Your task to perform on an android device: toggle javascript in the chrome app Image 0: 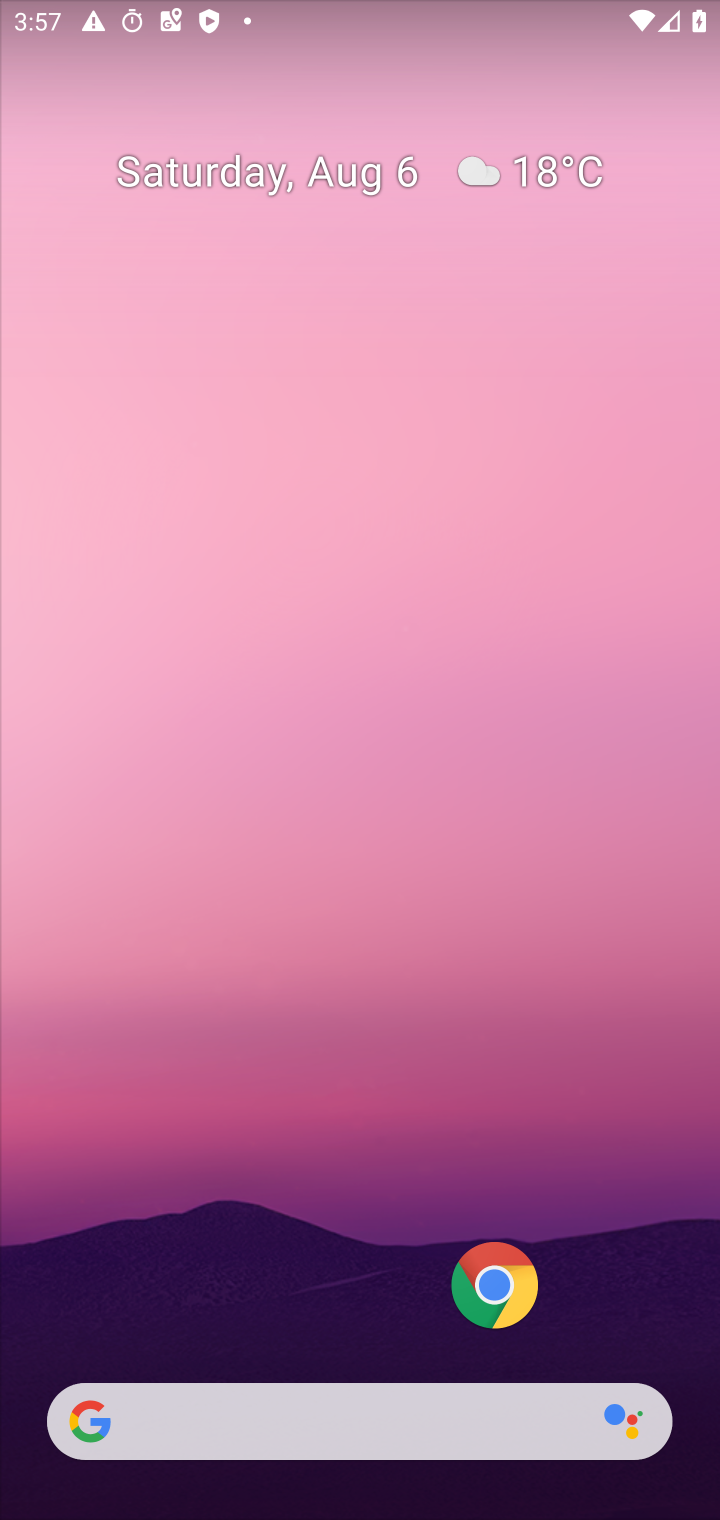
Step 0: press home button
Your task to perform on an android device: toggle javascript in the chrome app Image 1: 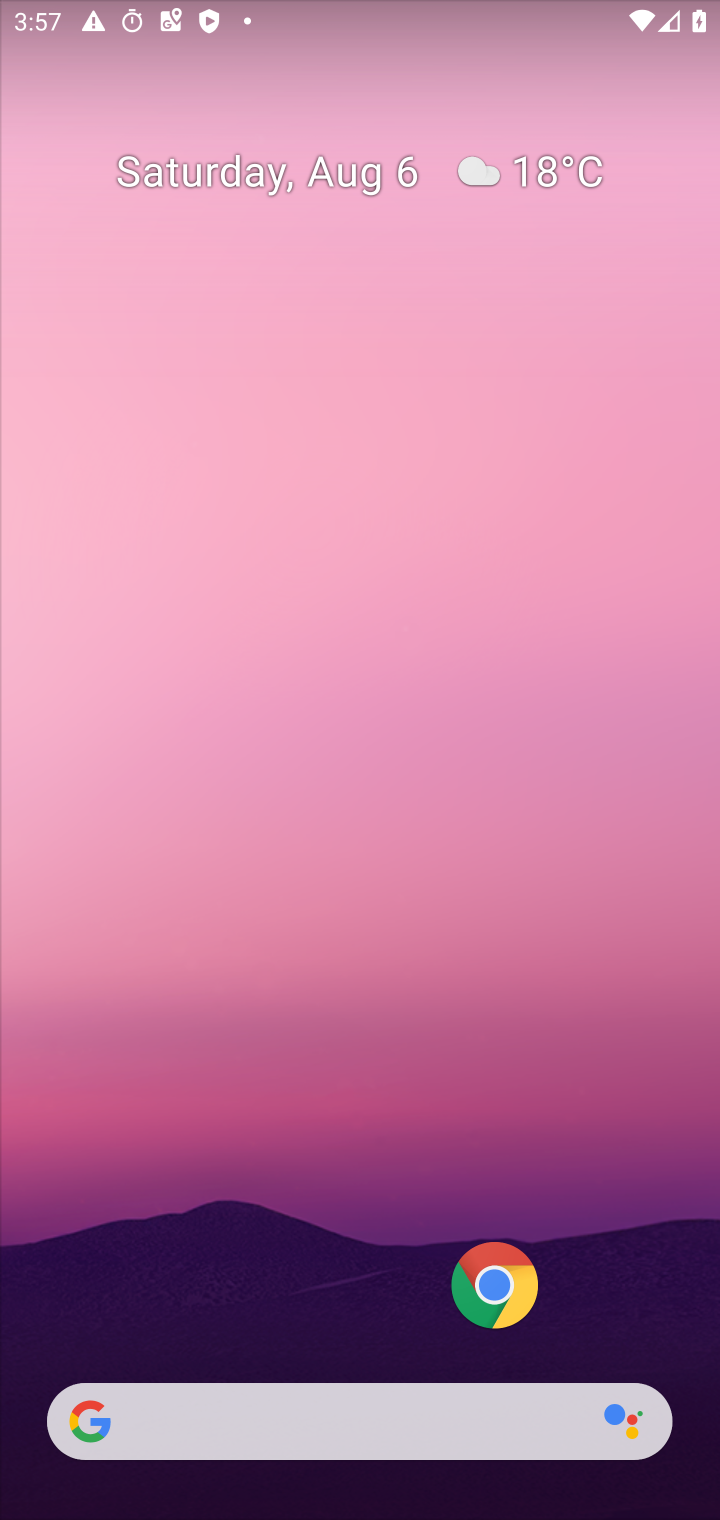
Step 1: click (485, 1276)
Your task to perform on an android device: toggle javascript in the chrome app Image 2: 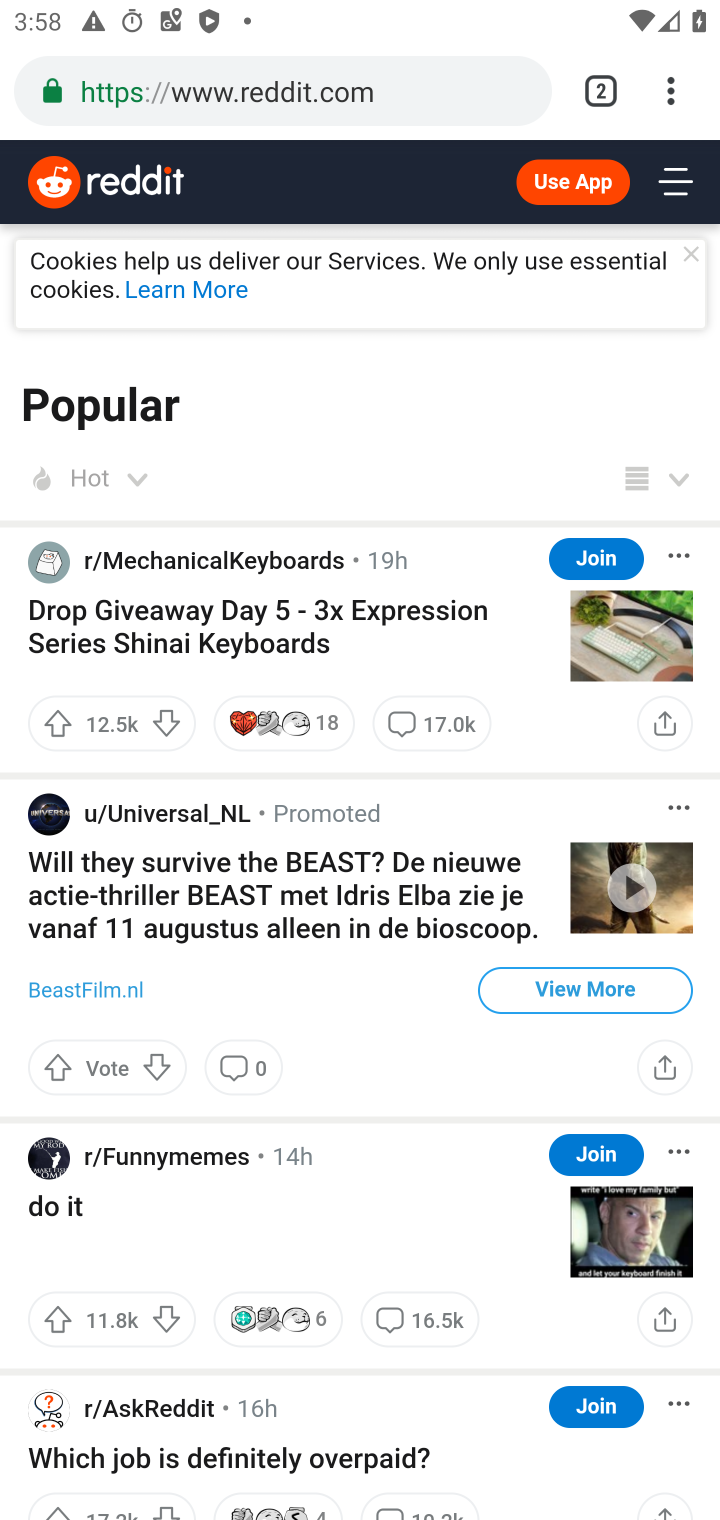
Step 2: click (672, 93)
Your task to perform on an android device: toggle javascript in the chrome app Image 3: 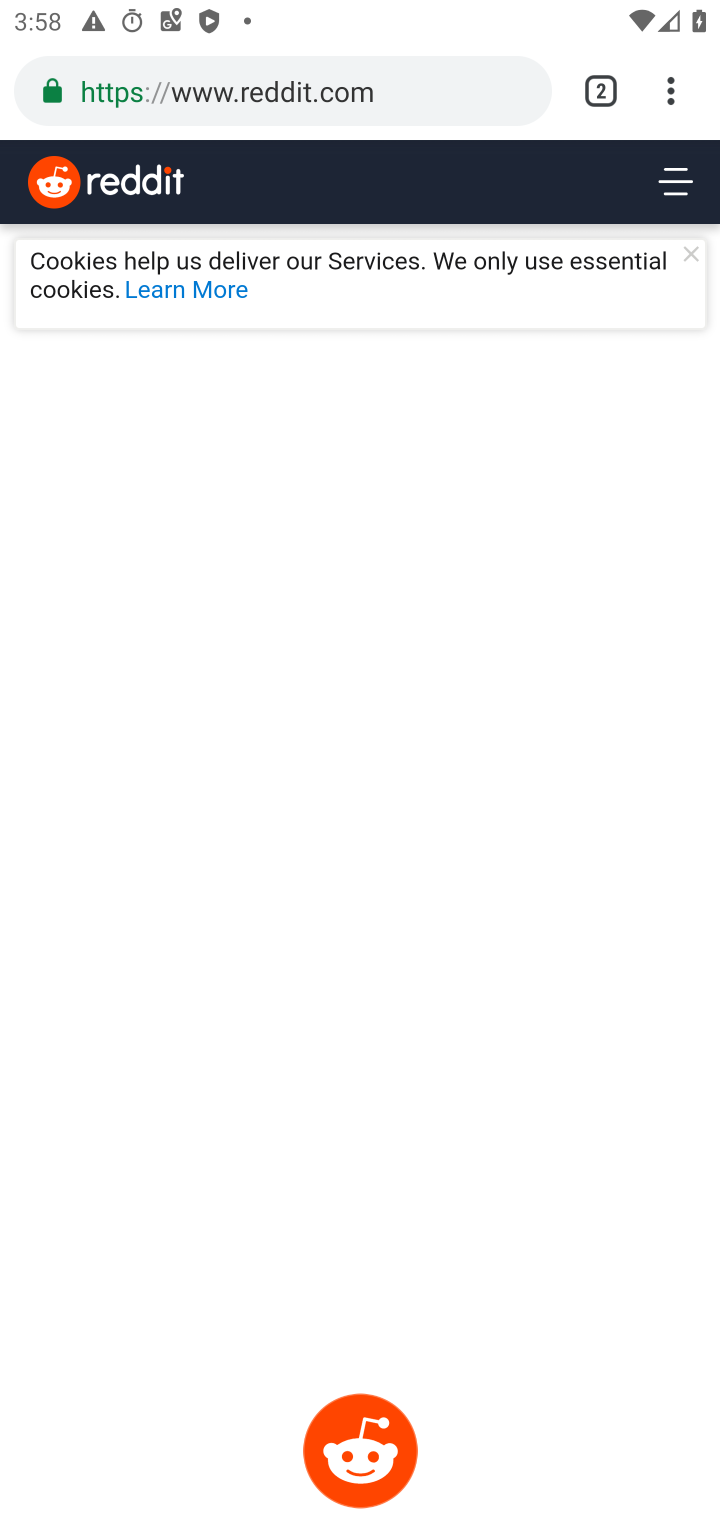
Step 3: click (670, 78)
Your task to perform on an android device: toggle javascript in the chrome app Image 4: 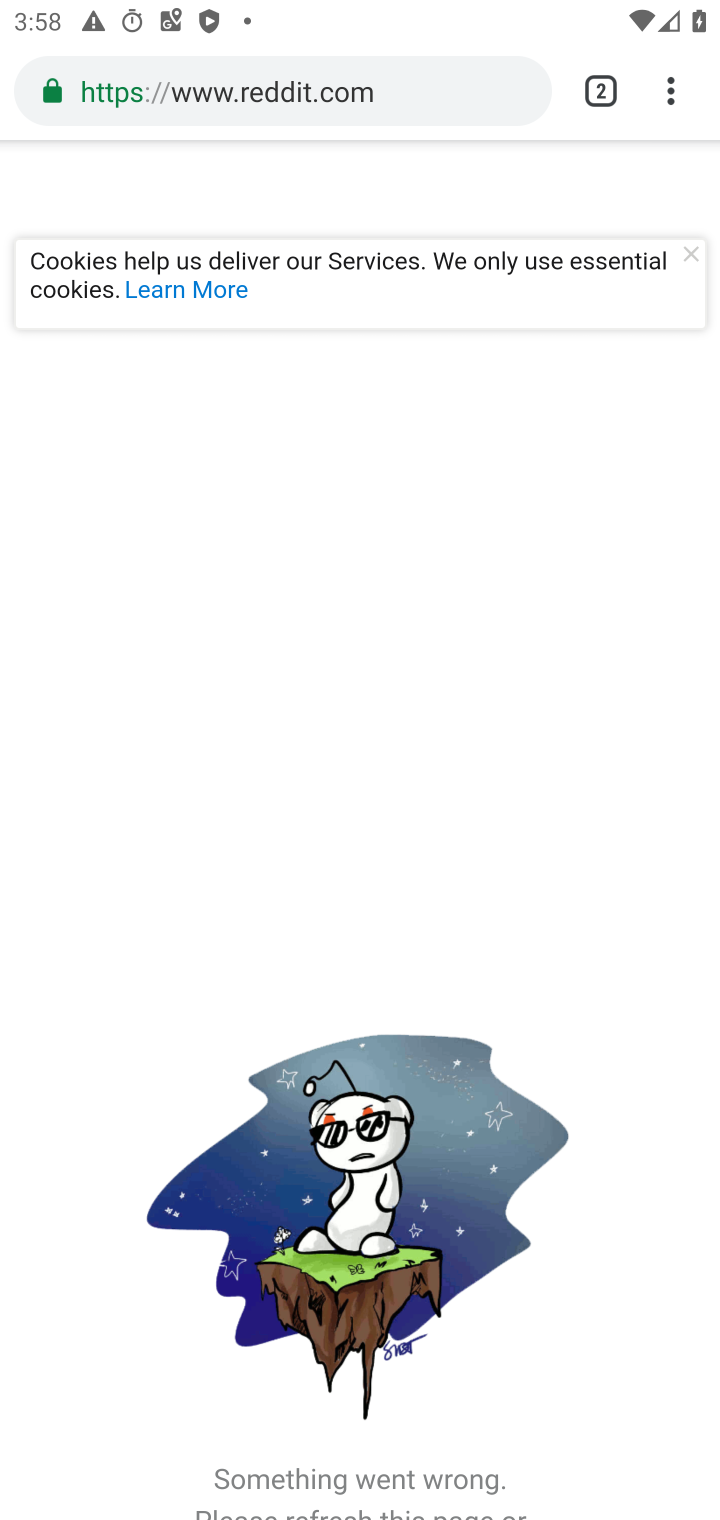
Step 4: click (666, 79)
Your task to perform on an android device: toggle javascript in the chrome app Image 5: 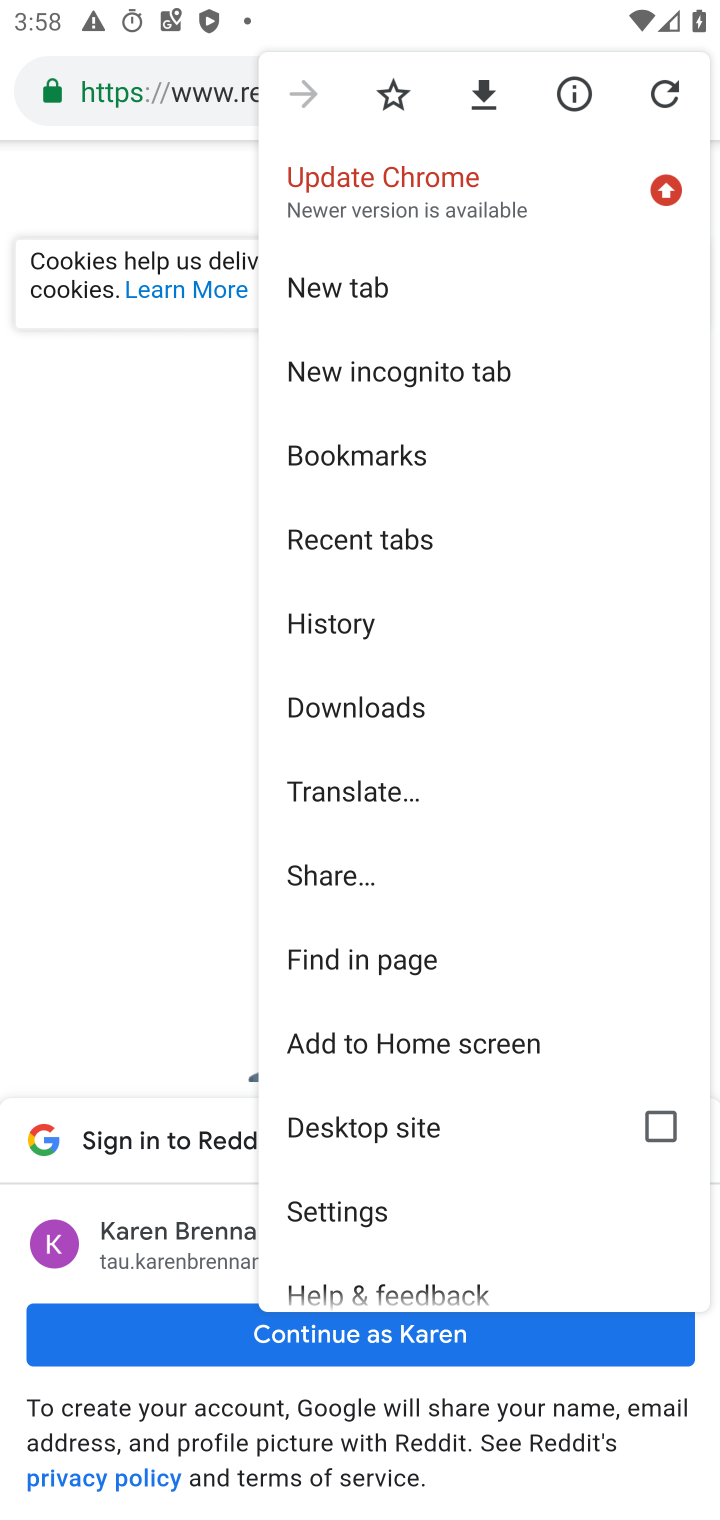
Step 5: click (388, 1202)
Your task to perform on an android device: toggle javascript in the chrome app Image 6: 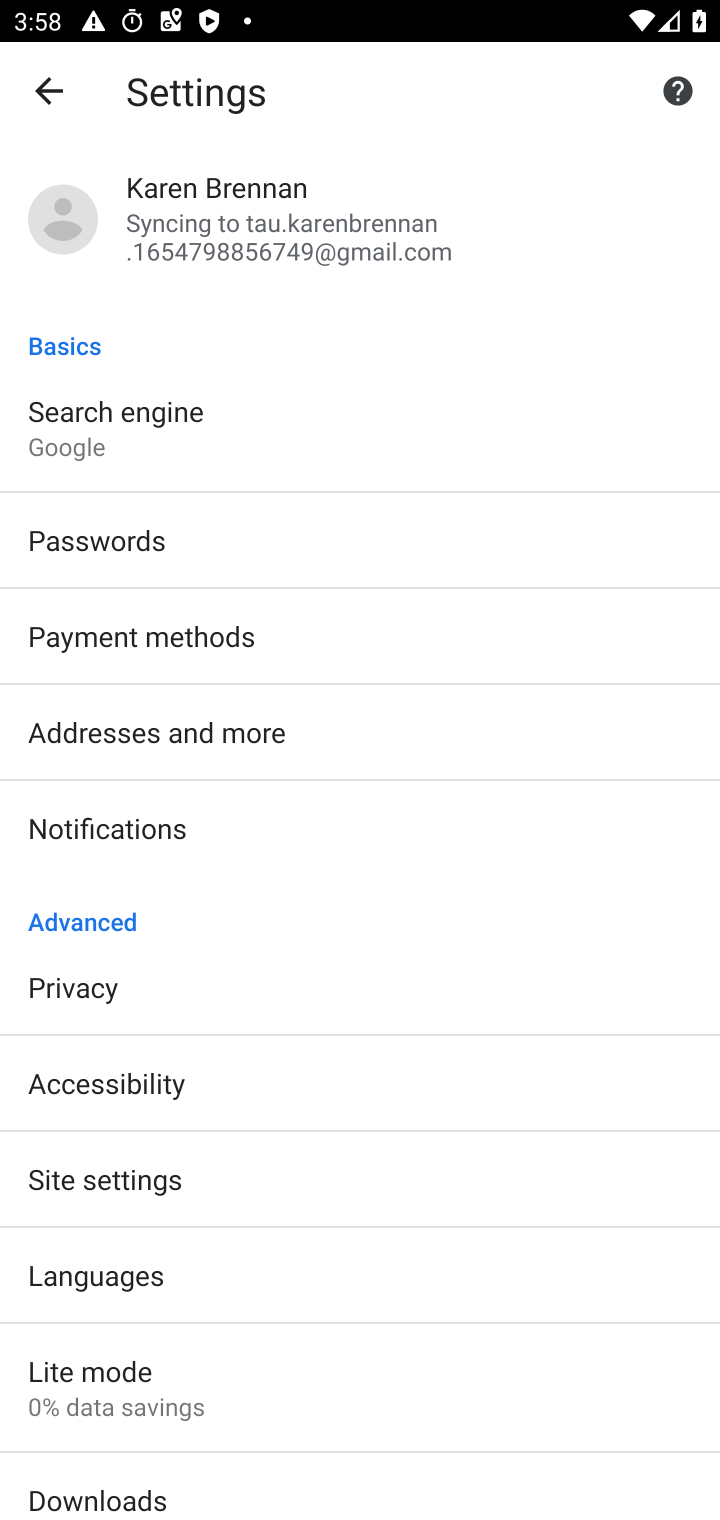
Step 6: click (184, 1157)
Your task to perform on an android device: toggle javascript in the chrome app Image 7: 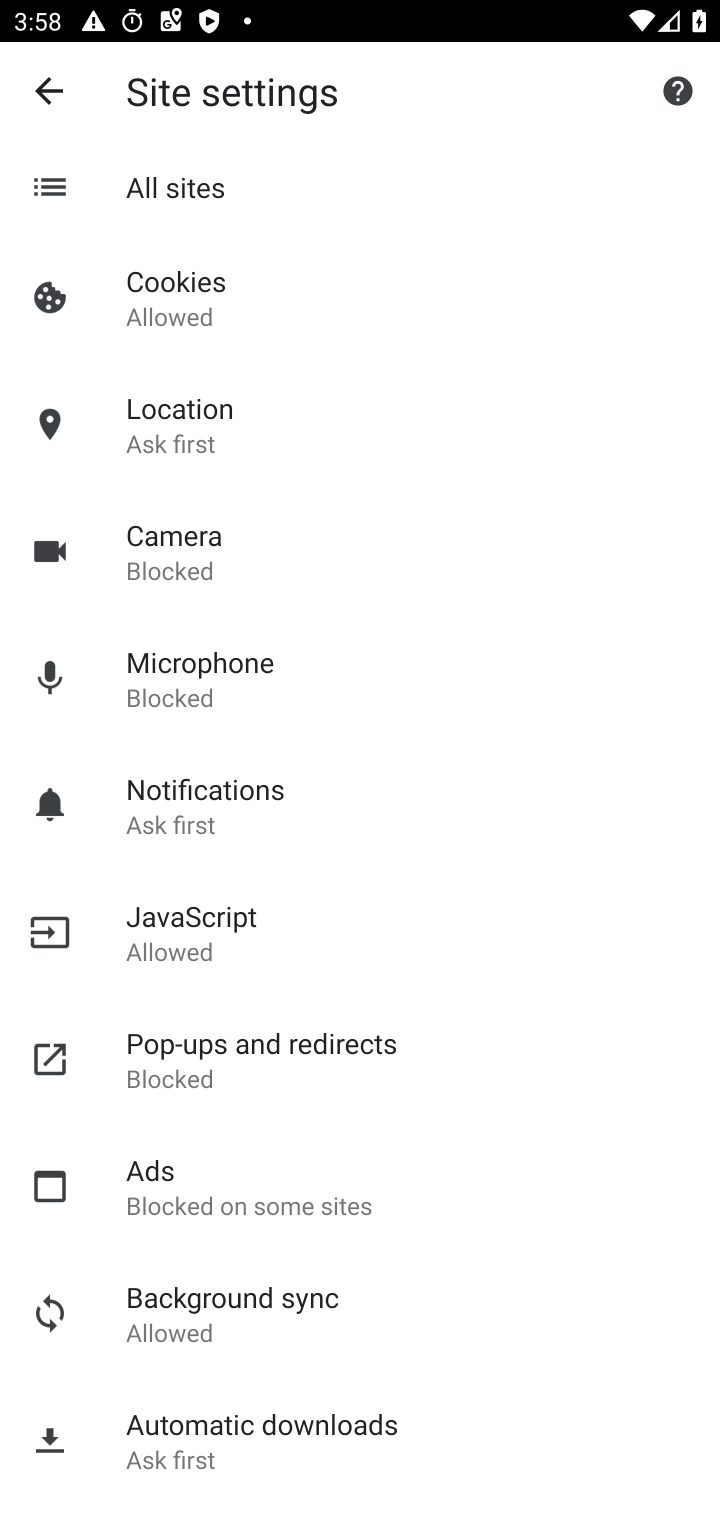
Step 7: click (259, 941)
Your task to perform on an android device: toggle javascript in the chrome app Image 8: 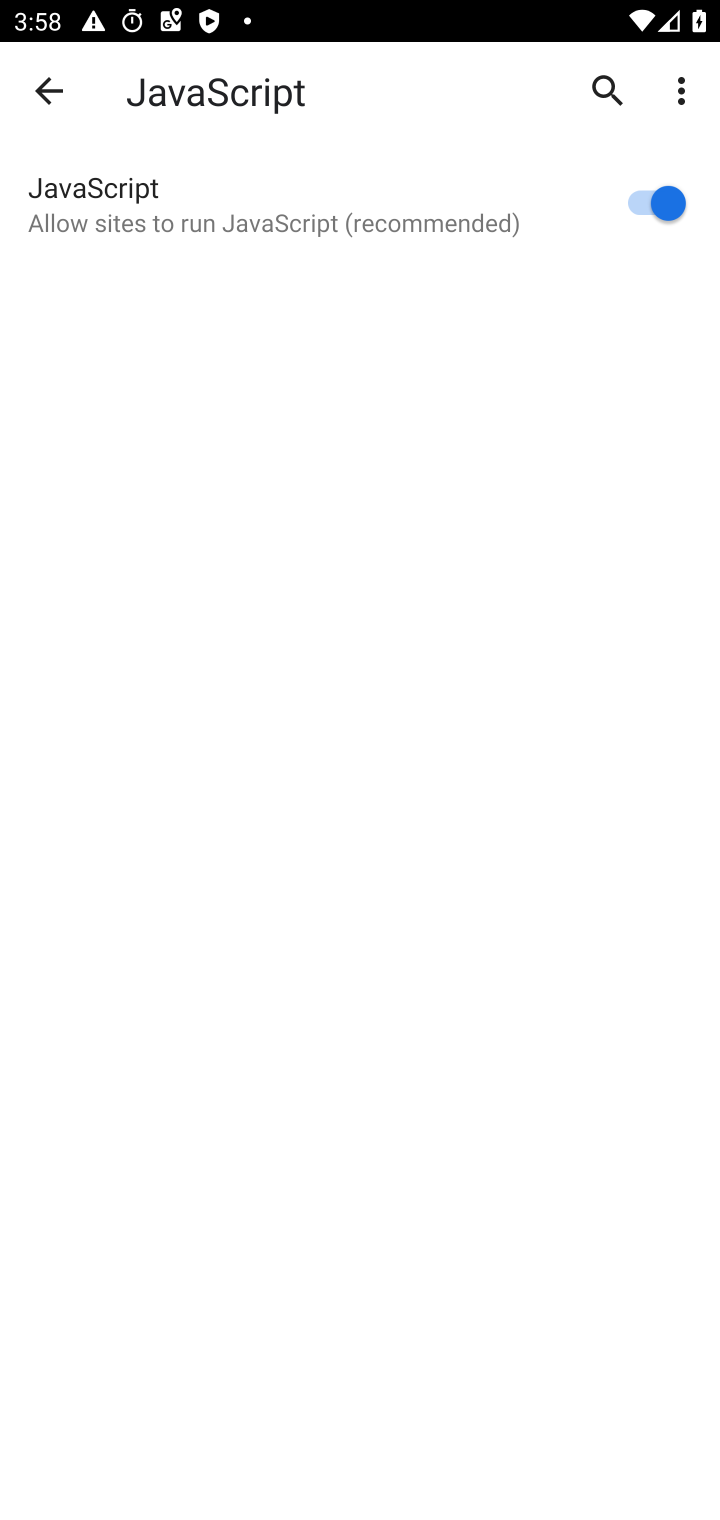
Step 8: click (642, 203)
Your task to perform on an android device: toggle javascript in the chrome app Image 9: 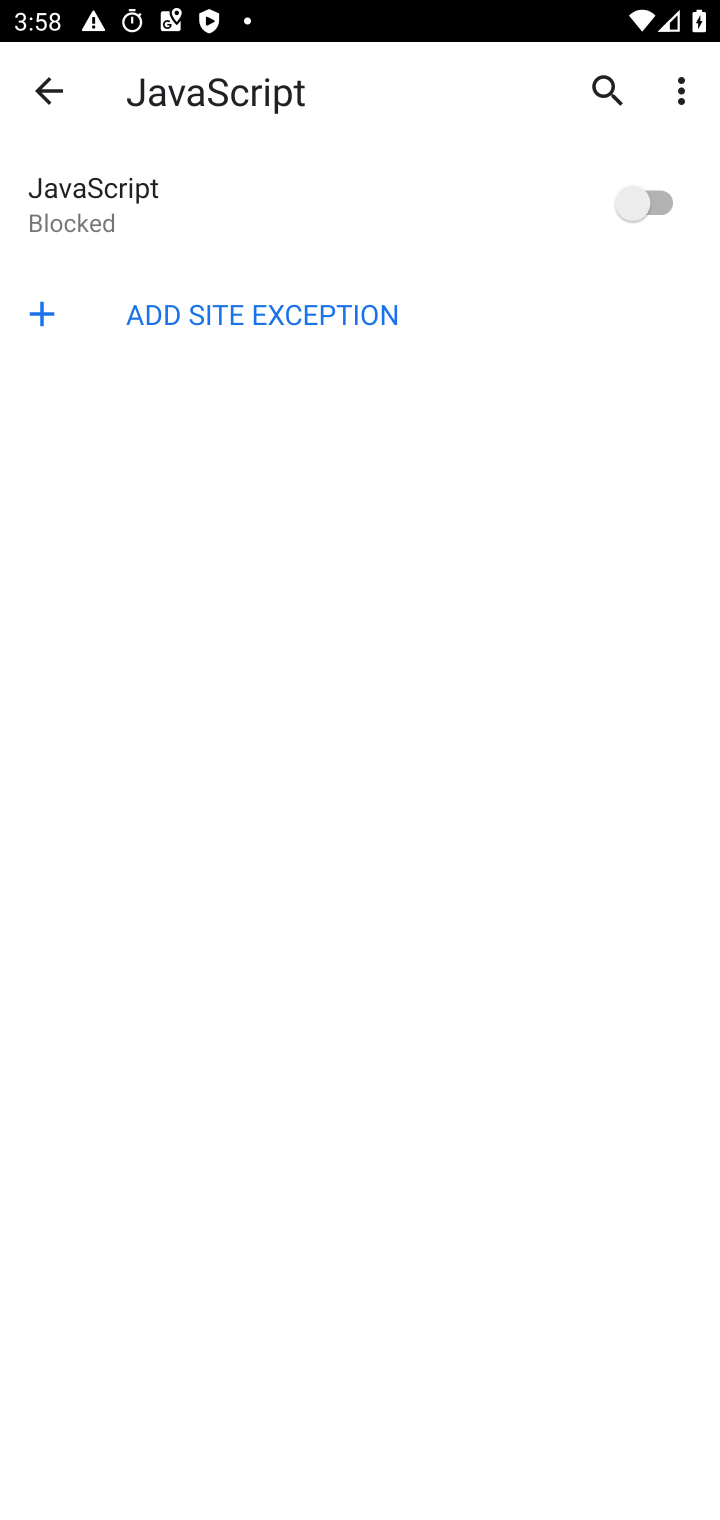
Step 9: task complete